Your task to perform on an android device: turn on the 24-hour format for clock Image 0: 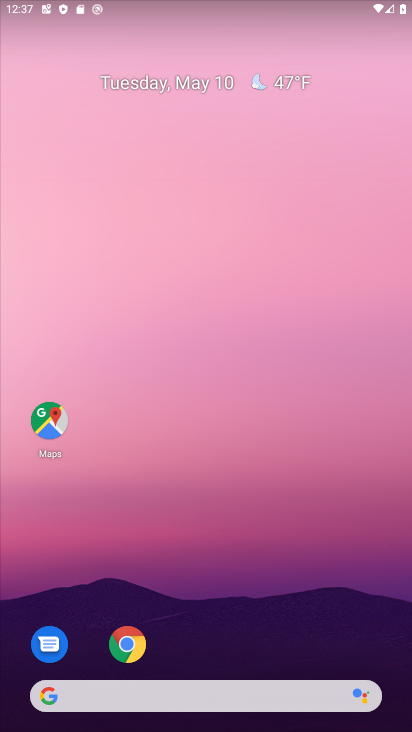
Step 0: drag from (197, 582) to (291, 111)
Your task to perform on an android device: turn on the 24-hour format for clock Image 1: 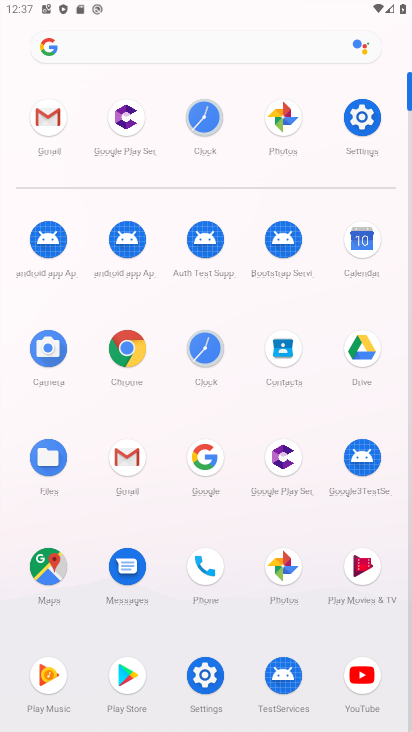
Step 1: click (209, 347)
Your task to perform on an android device: turn on the 24-hour format for clock Image 2: 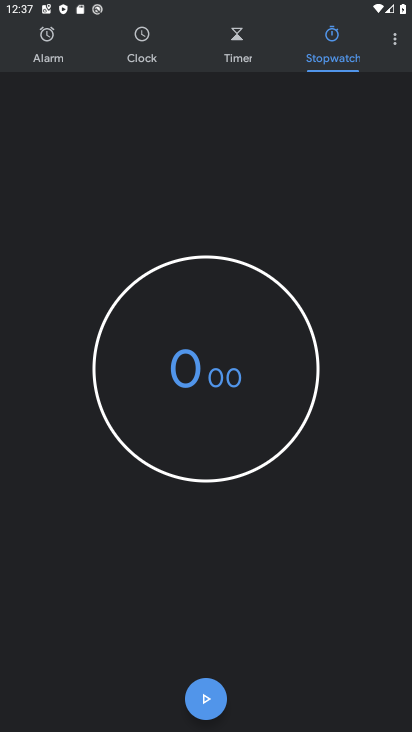
Step 2: click (393, 33)
Your task to perform on an android device: turn on the 24-hour format for clock Image 3: 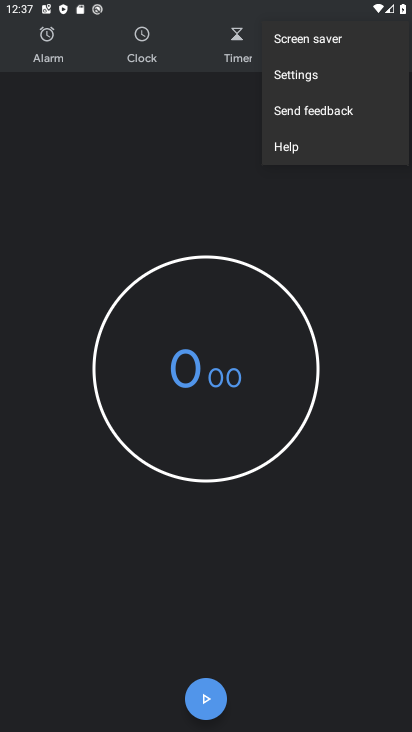
Step 3: click (325, 76)
Your task to perform on an android device: turn on the 24-hour format for clock Image 4: 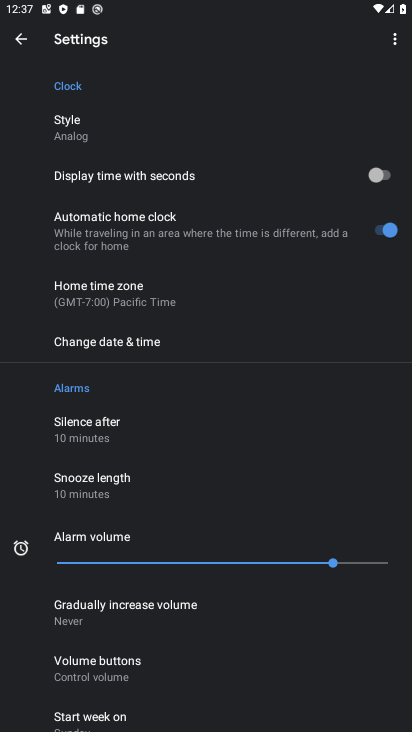
Step 4: drag from (168, 666) to (296, 200)
Your task to perform on an android device: turn on the 24-hour format for clock Image 5: 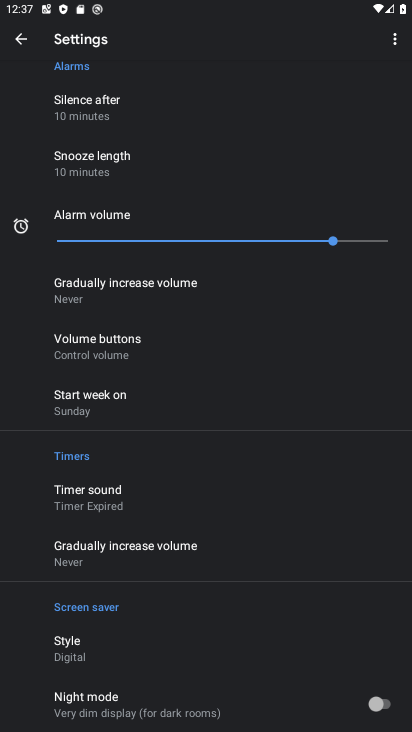
Step 5: drag from (200, 296) to (159, 688)
Your task to perform on an android device: turn on the 24-hour format for clock Image 6: 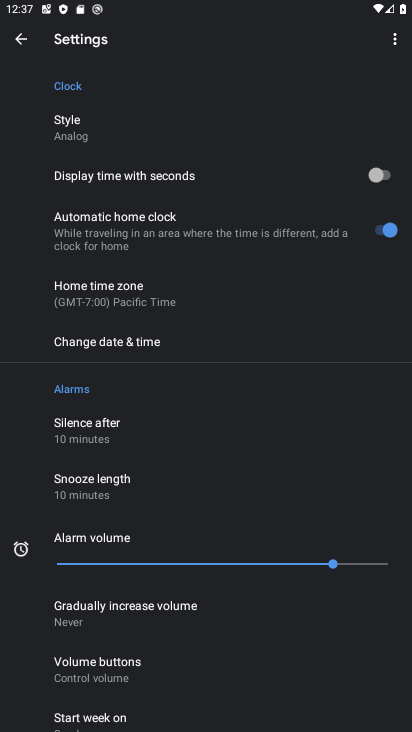
Step 6: click (103, 348)
Your task to perform on an android device: turn on the 24-hour format for clock Image 7: 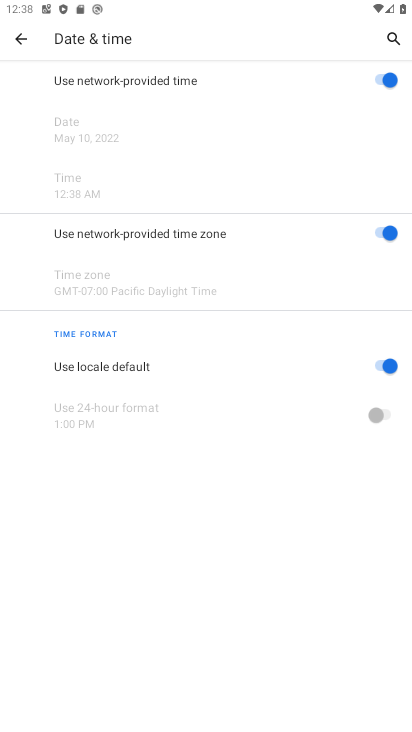
Step 7: click (387, 359)
Your task to perform on an android device: turn on the 24-hour format for clock Image 8: 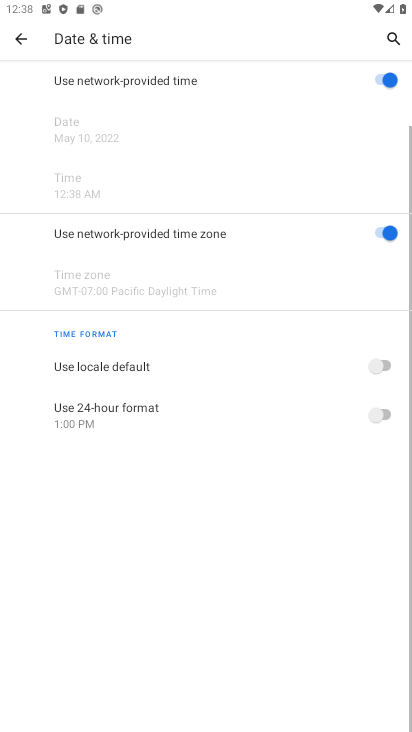
Step 8: click (373, 418)
Your task to perform on an android device: turn on the 24-hour format for clock Image 9: 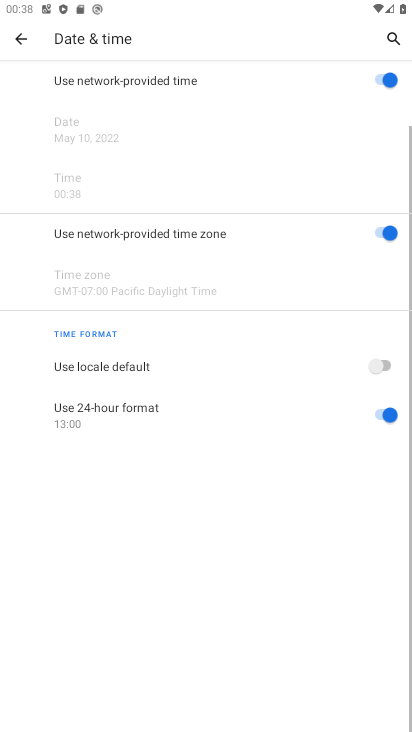
Step 9: task complete